Your task to perform on an android device: Go to Wikipedia Image 0: 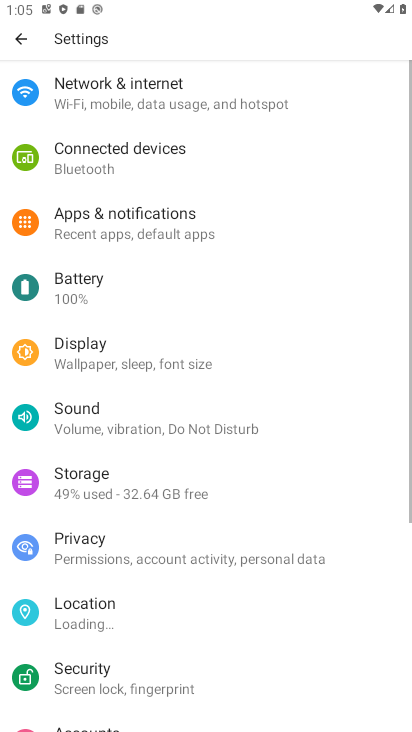
Step 0: press home button
Your task to perform on an android device: Go to Wikipedia Image 1: 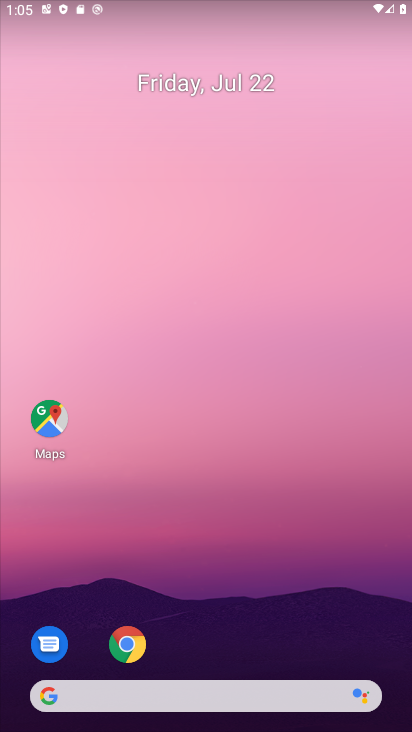
Step 1: click (125, 650)
Your task to perform on an android device: Go to Wikipedia Image 2: 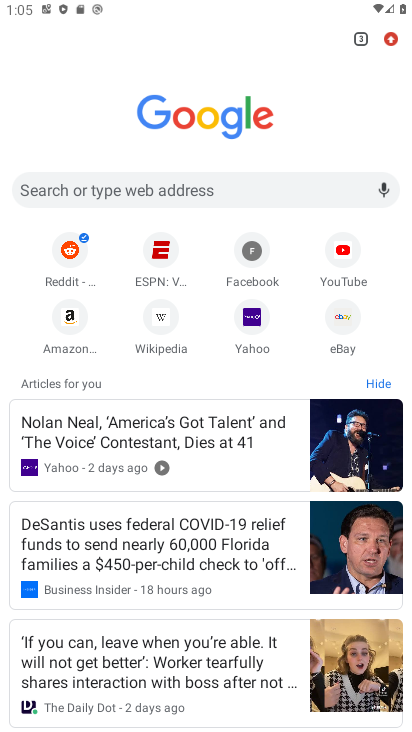
Step 2: click (159, 313)
Your task to perform on an android device: Go to Wikipedia Image 3: 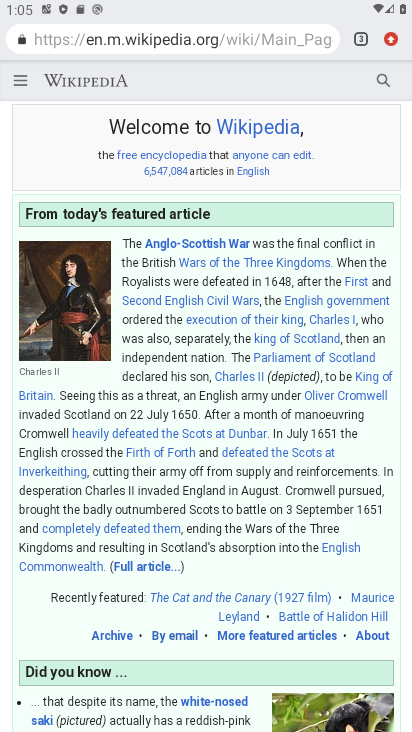
Step 3: task complete